Your task to perform on an android device: add a contact in the contacts app Image 0: 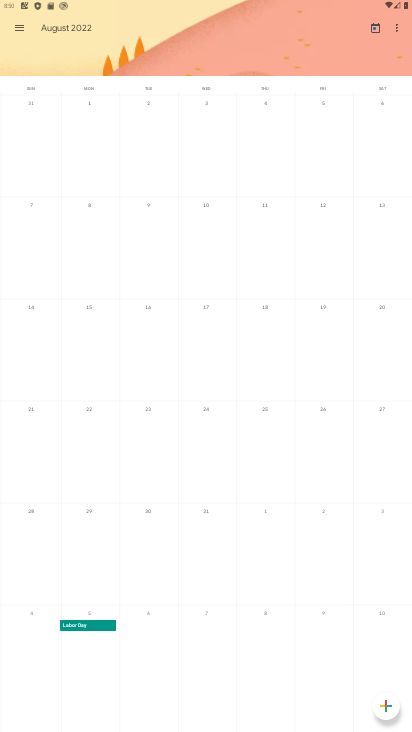
Step 0: press home button
Your task to perform on an android device: add a contact in the contacts app Image 1: 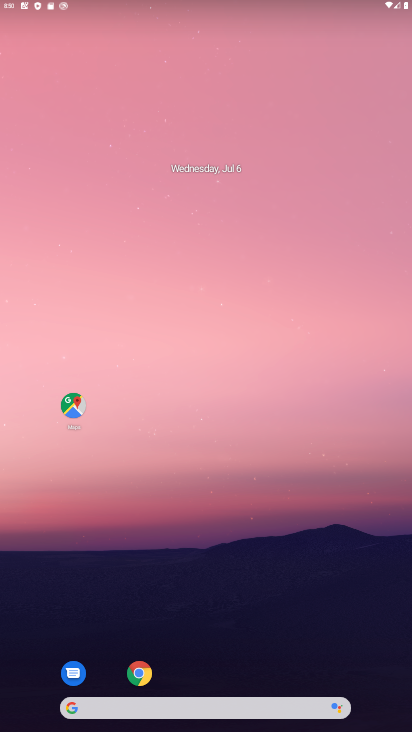
Step 1: drag from (253, 585) to (244, 173)
Your task to perform on an android device: add a contact in the contacts app Image 2: 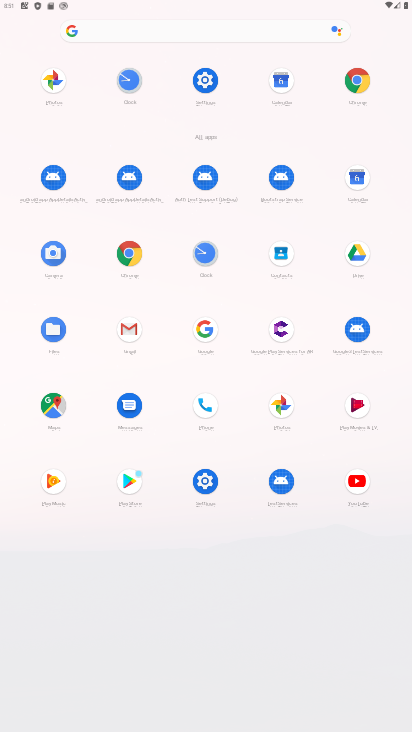
Step 2: click (198, 403)
Your task to perform on an android device: add a contact in the contacts app Image 3: 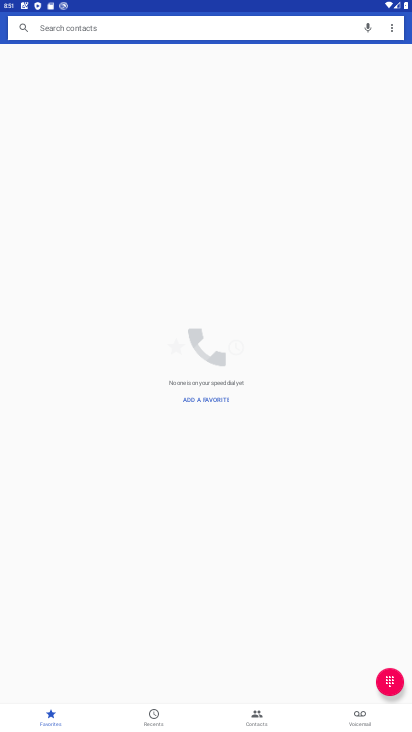
Step 3: click (195, 386)
Your task to perform on an android device: add a contact in the contacts app Image 4: 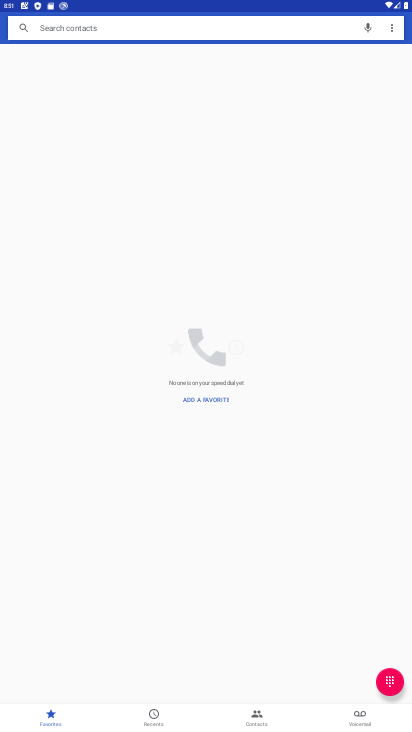
Step 4: click (199, 400)
Your task to perform on an android device: add a contact in the contacts app Image 5: 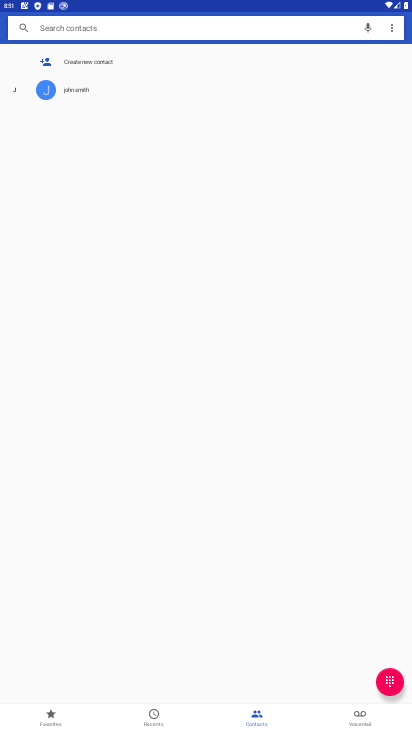
Step 5: click (94, 63)
Your task to perform on an android device: add a contact in the contacts app Image 6: 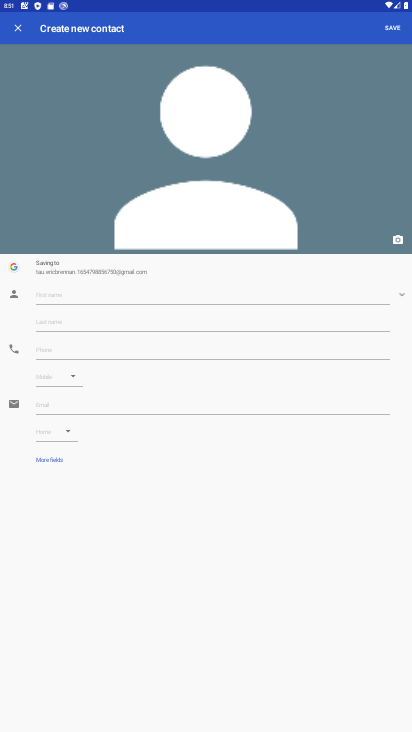
Step 6: click (147, 297)
Your task to perform on an android device: add a contact in the contacts app Image 7: 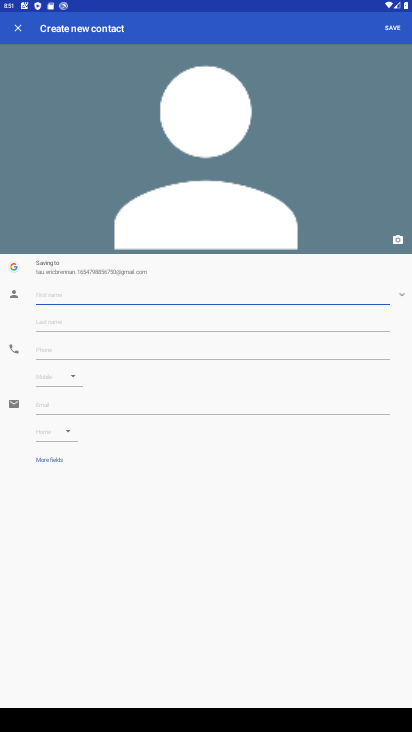
Step 7: type "hghghghghghghghfdfdf"
Your task to perform on an android device: add a contact in the contacts app Image 8: 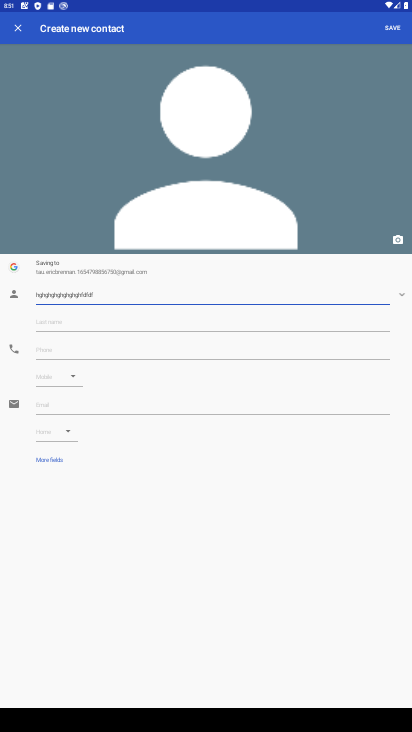
Step 8: click (101, 345)
Your task to perform on an android device: add a contact in the contacts app Image 9: 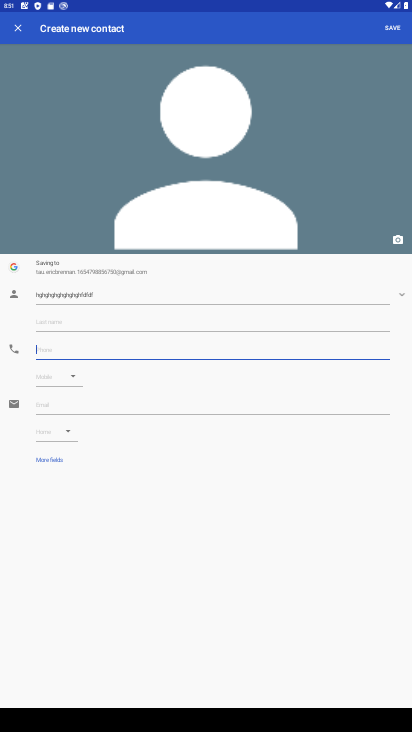
Step 9: type "12345678904567"
Your task to perform on an android device: add a contact in the contacts app Image 10: 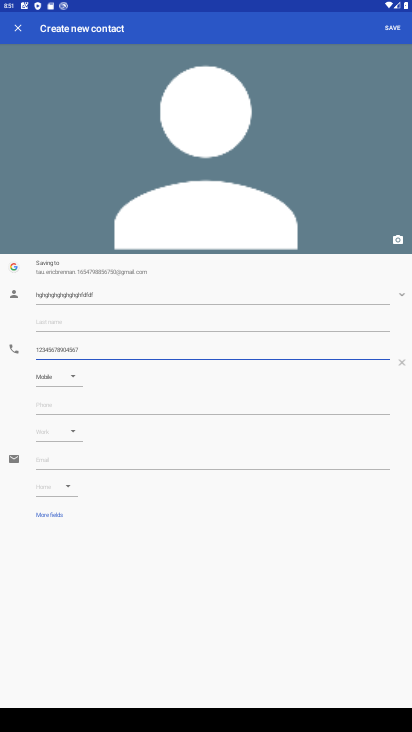
Step 10: click (394, 31)
Your task to perform on an android device: add a contact in the contacts app Image 11: 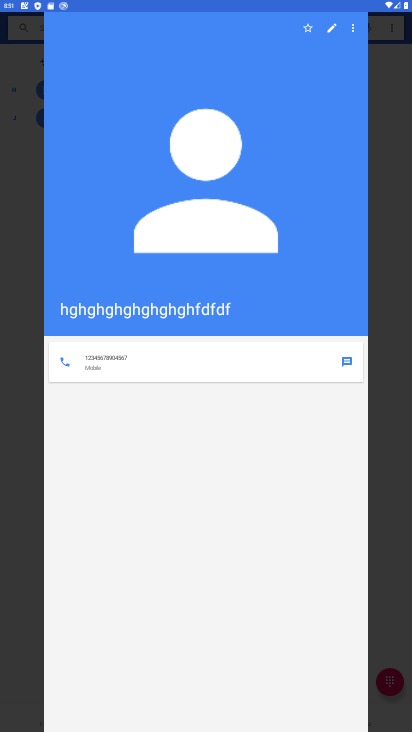
Step 11: task complete